Your task to perform on an android device: open app "Messenger Lite" (install if not already installed), go to login, and select forgot password Image 0: 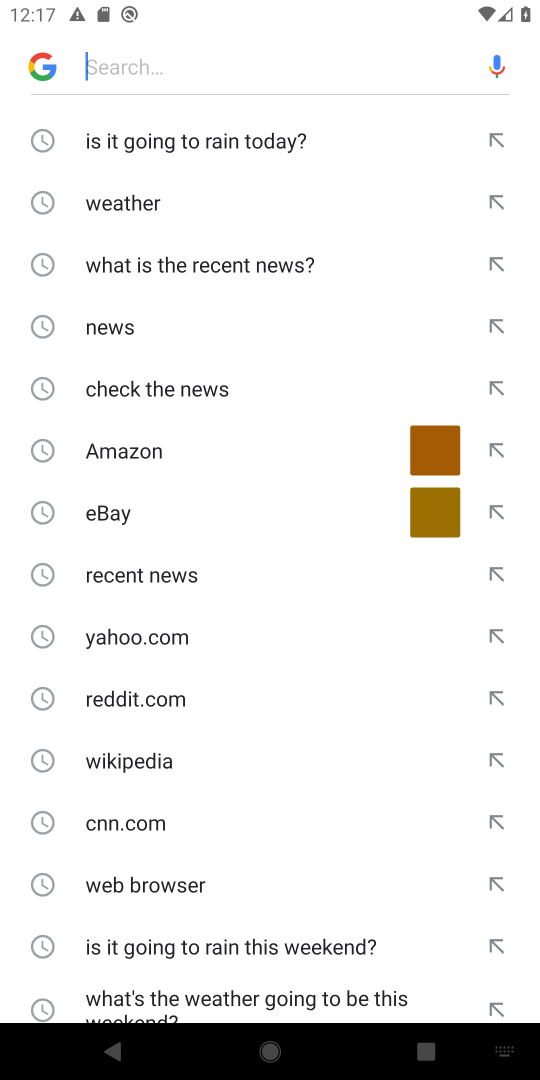
Step 0: press home button
Your task to perform on an android device: open app "Messenger Lite" (install if not already installed), go to login, and select forgot password Image 1: 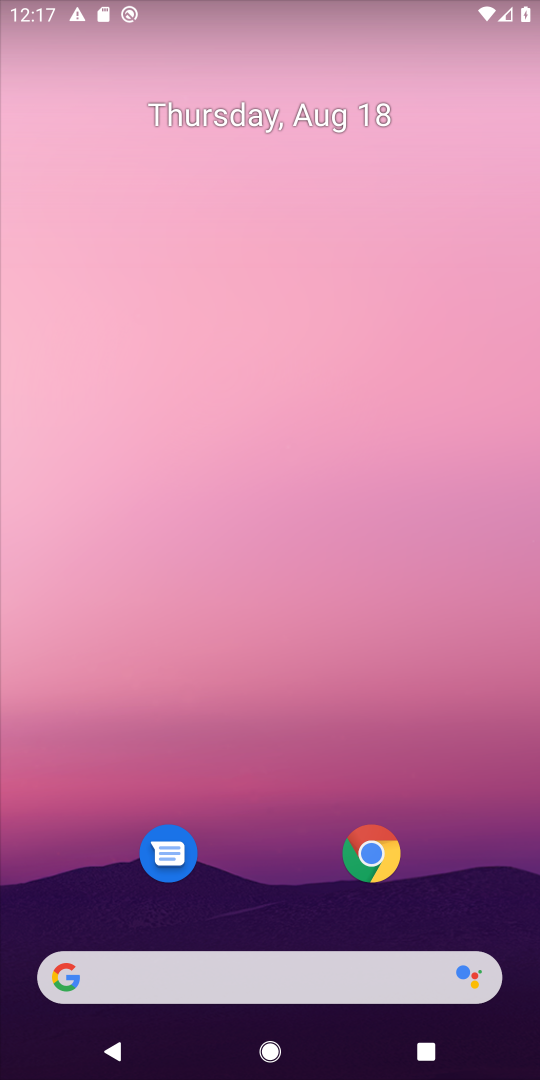
Step 1: click (459, 246)
Your task to perform on an android device: open app "Messenger Lite" (install if not already installed), go to login, and select forgot password Image 2: 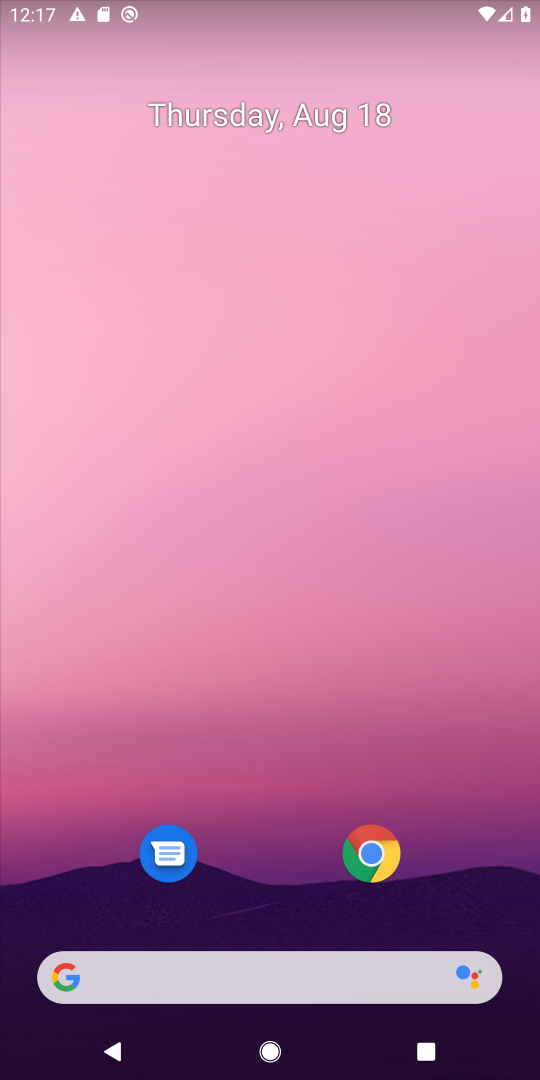
Step 2: drag from (265, 1040) to (310, 341)
Your task to perform on an android device: open app "Messenger Lite" (install if not already installed), go to login, and select forgot password Image 3: 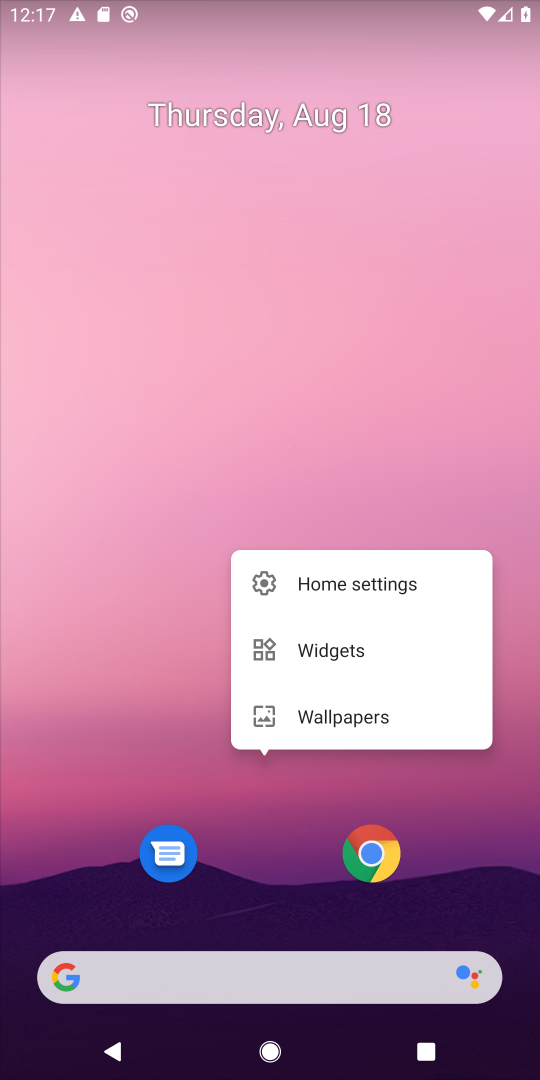
Step 3: drag from (251, 956) to (366, 283)
Your task to perform on an android device: open app "Messenger Lite" (install if not already installed), go to login, and select forgot password Image 4: 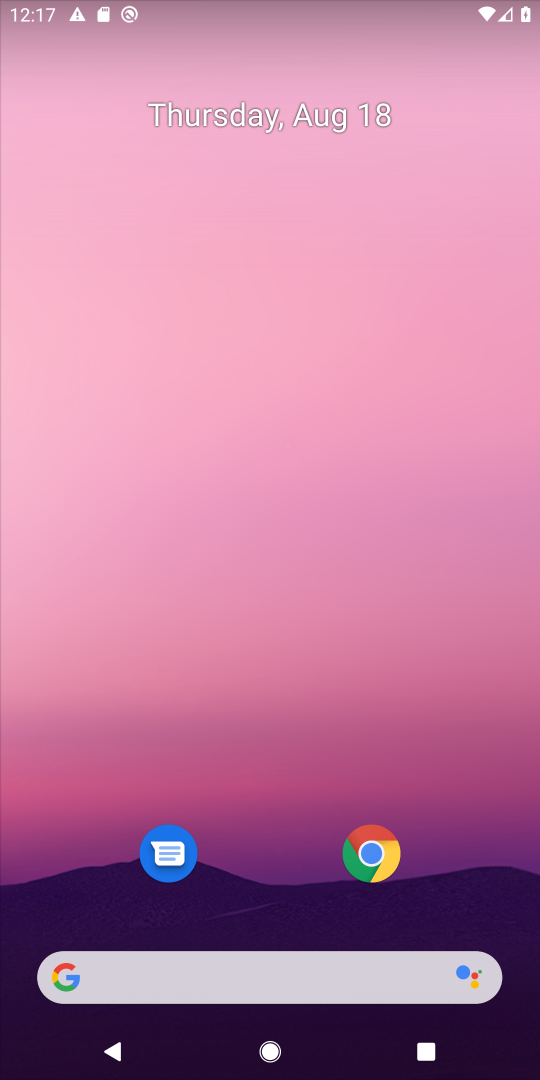
Step 4: drag from (164, 959) to (332, 211)
Your task to perform on an android device: open app "Messenger Lite" (install if not already installed), go to login, and select forgot password Image 5: 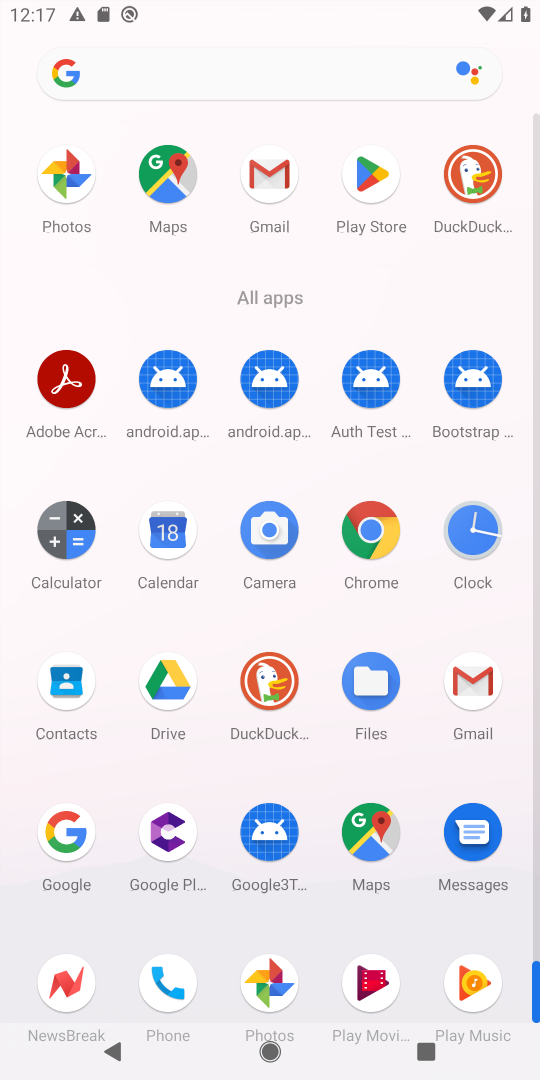
Step 5: click (352, 205)
Your task to perform on an android device: open app "Messenger Lite" (install if not already installed), go to login, and select forgot password Image 6: 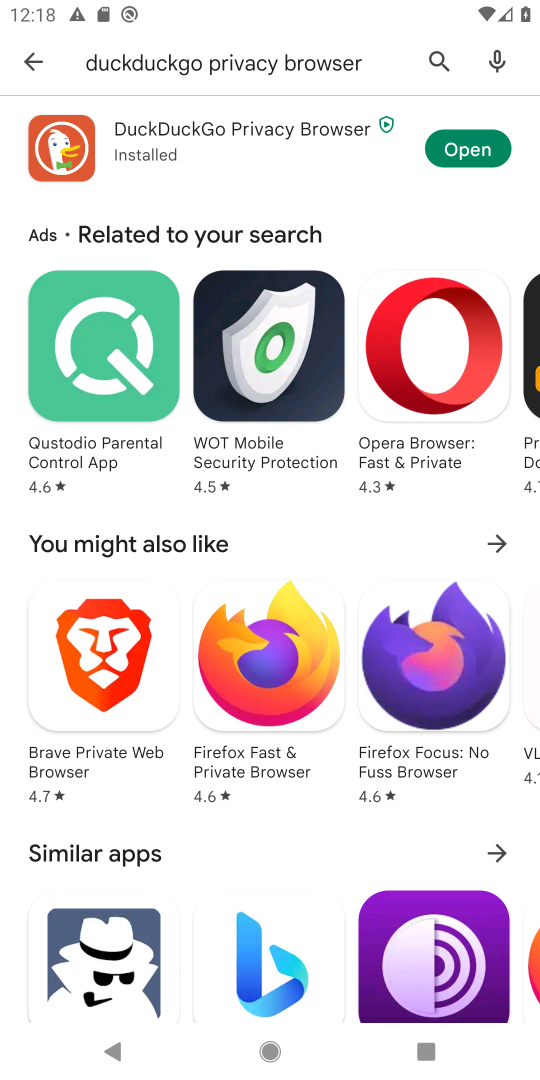
Step 6: click (38, 51)
Your task to perform on an android device: open app "Messenger Lite" (install if not already installed), go to login, and select forgot password Image 7: 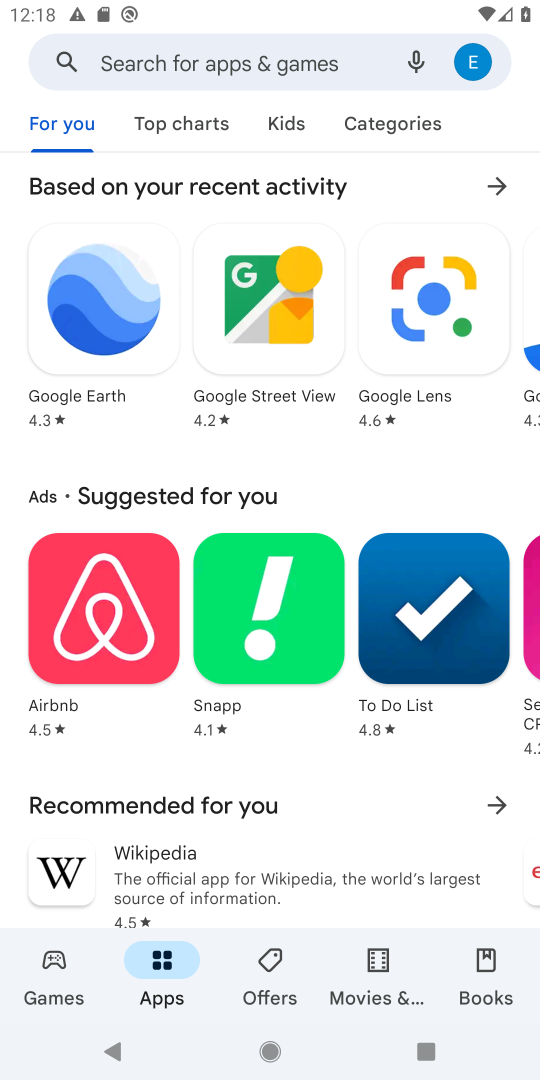
Step 7: click (218, 74)
Your task to perform on an android device: open app "Messenger Lite" (install if not already installed), go to login, and select forgot password Image 8: 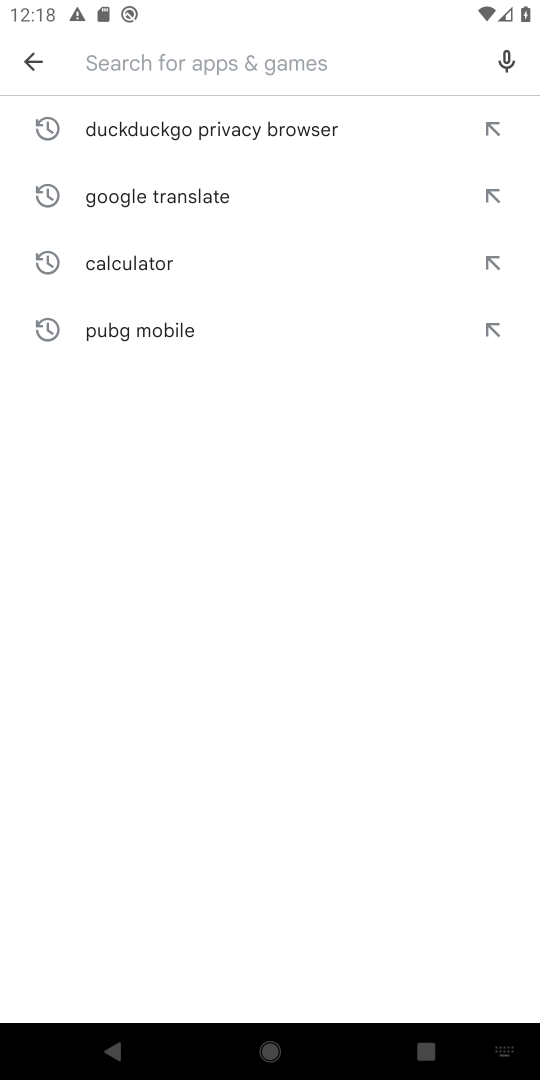
Step 8: type "Messenger Lite"
Your task to perform on an android device: open app "Messenger Lite" (install if not already installed), go to login, and select forgot password Image 9: 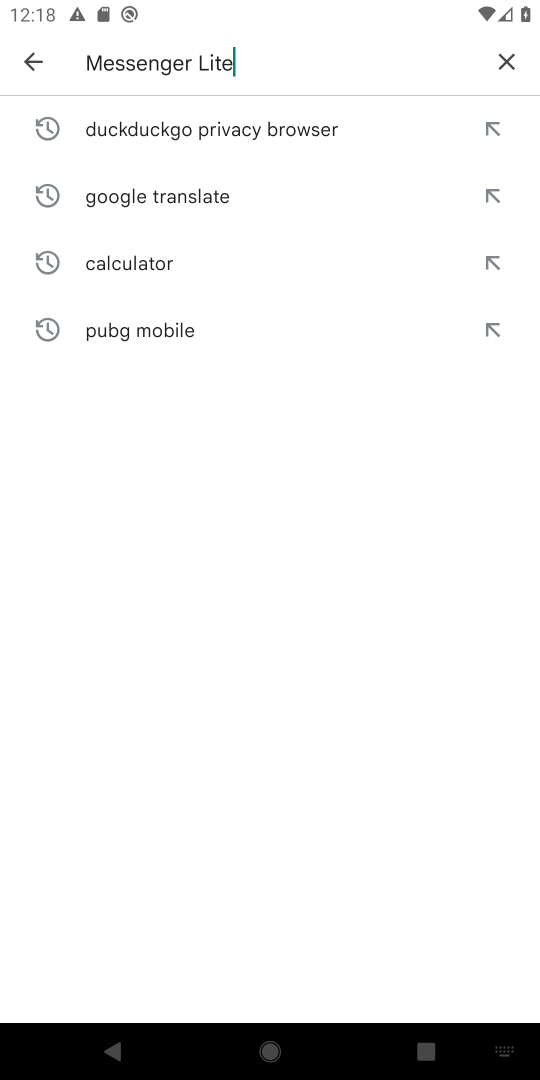
Step 9: type ""
Your task to perform on an android device: open app "Messenger Lite" (install if not already installed), go to login, and select forgot password Image 10: 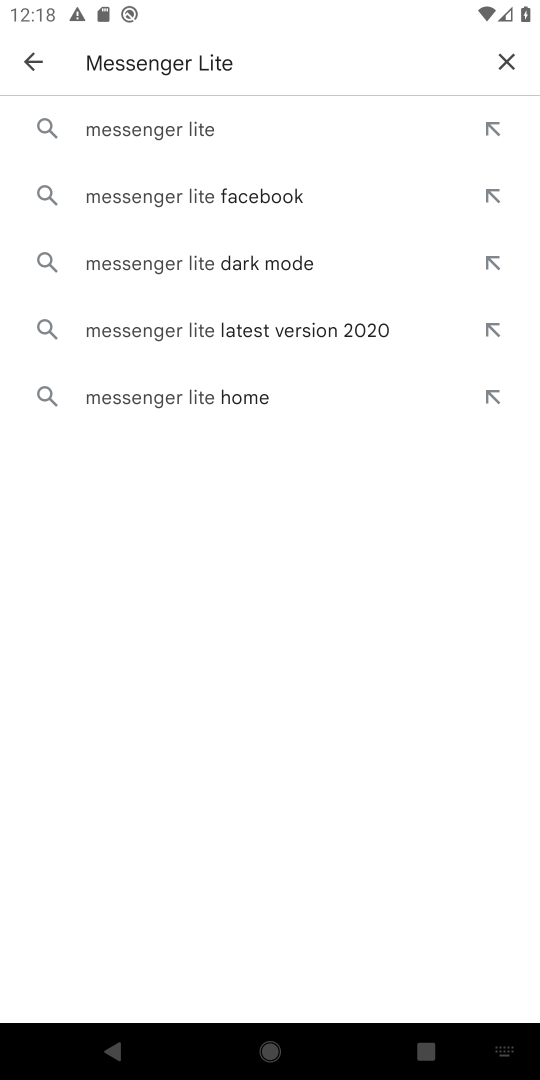
Step 10: click (130, 129)
Your task to perform on an android device: open app "Messenger Lite" (install if not already installed), go to login, and select forgot password Image 11: 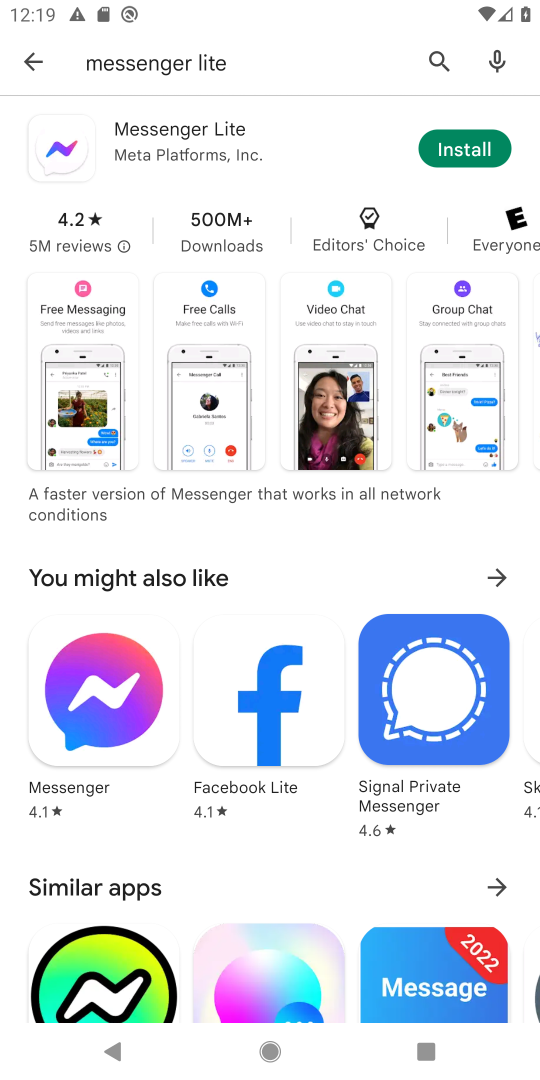
Step 11: click (472, 148)
Your task to perform on an android device: open app "Messenger Lite" (install if not already installed), go to login, and select forgot password Image 12: 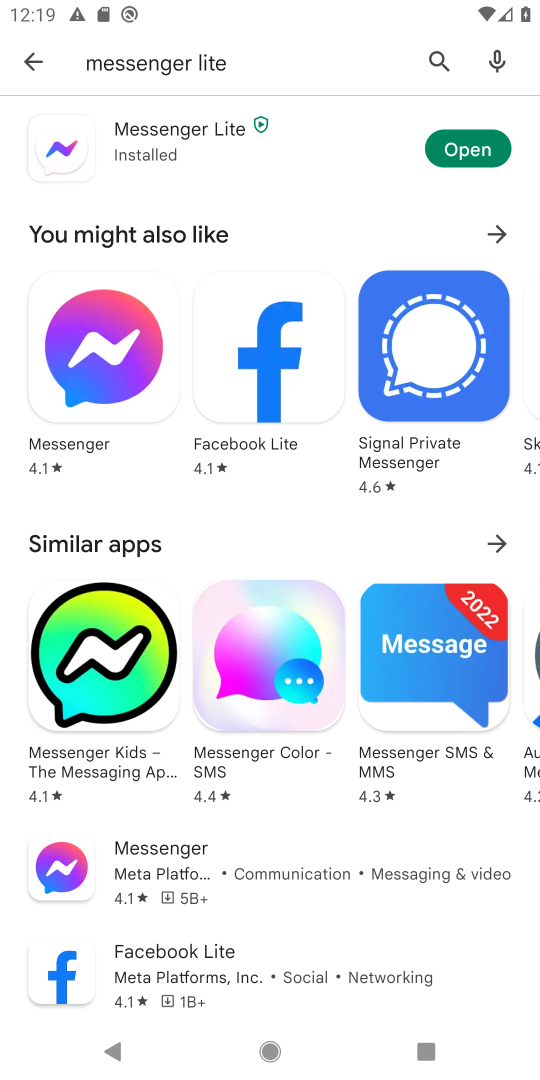
Step 12: drag from (468, 149) to (412, 138)
Your task to perform on an android device: open app "Messenger Lite" (install if not already installed), go to login, and select forgot password Image 13: 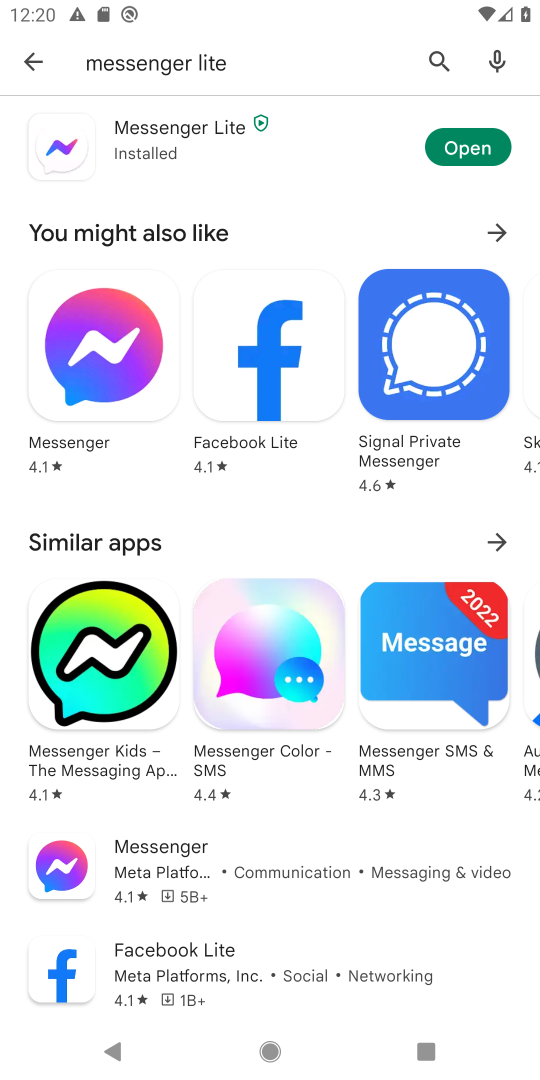
Step 13: click (461, 142)
Your task to perform on an android device: open app "Messenger Lite" (install if not already installed), go to login, and select forgot password Image 14: 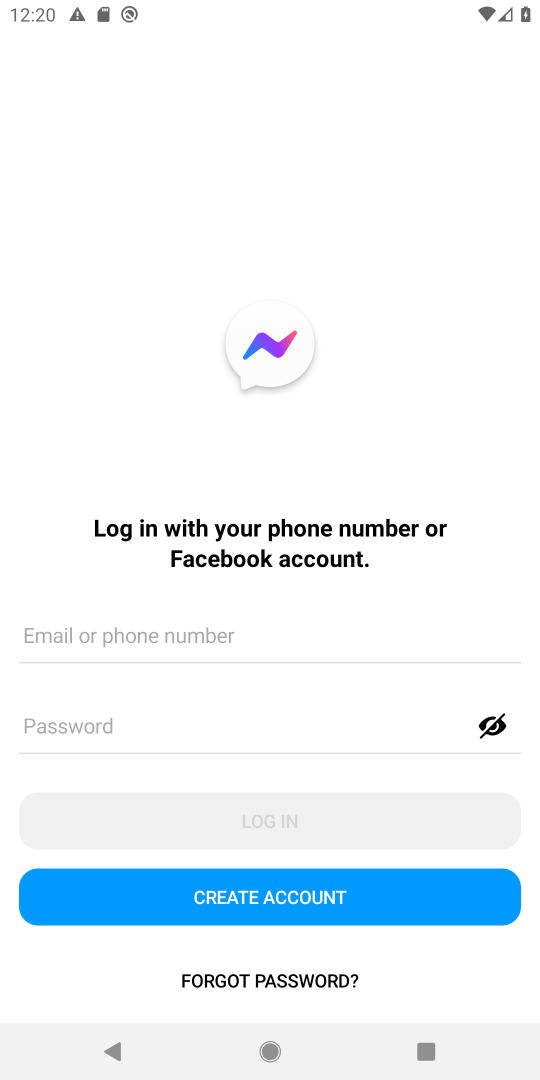
Step 14: task complete